Your task to perform on an android device: toggle priority inbox in the gmail app Image 0: 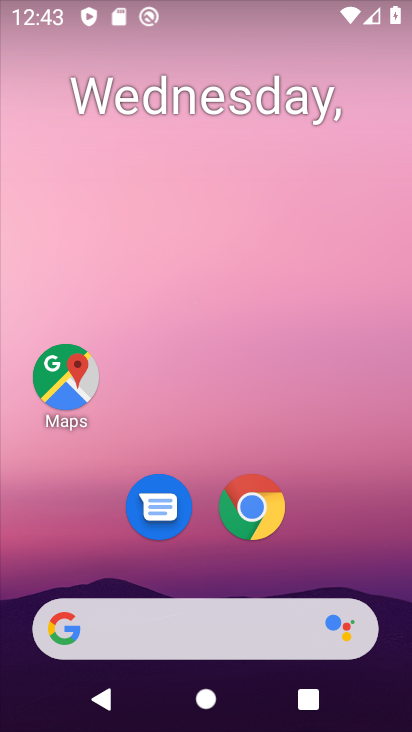
Step 0: drag from (361, 435) to (297, 2)
Your task to perform on an android device: toggle priority inbox in the gmail app Image 1: 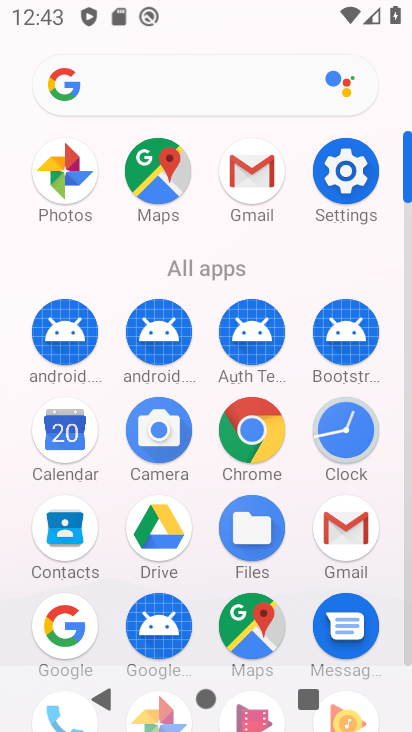
Step 1: click (256, 177)
Your task to perform on an android device: toggle priority inbox in the gmail app Image 2: 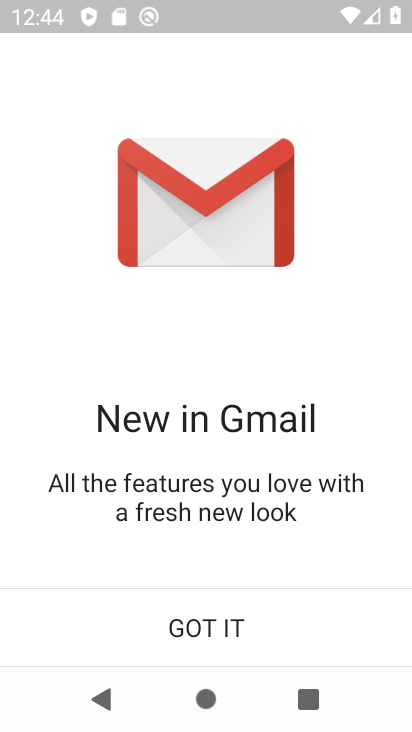
Step 2: click (230, 624)
Your task to perform on an android device: toggle priority inbox in the gmail app Image 3: 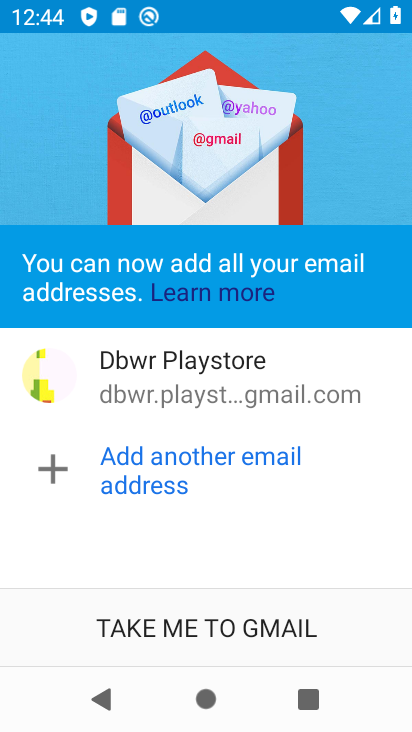
Step 3: click (209, 617)
Your task to perform on an android device: toggle priority inbox in the gmail app Image 4: 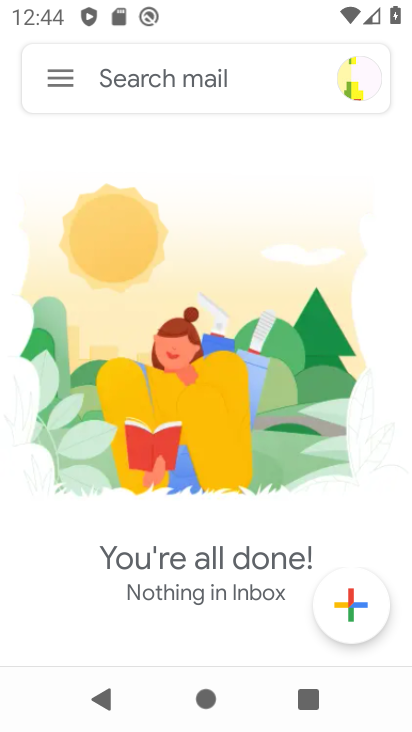
Step 4: click (56, 89)
Your task to perform on an android device: toggle priority inbox in the gmail app Image 5: 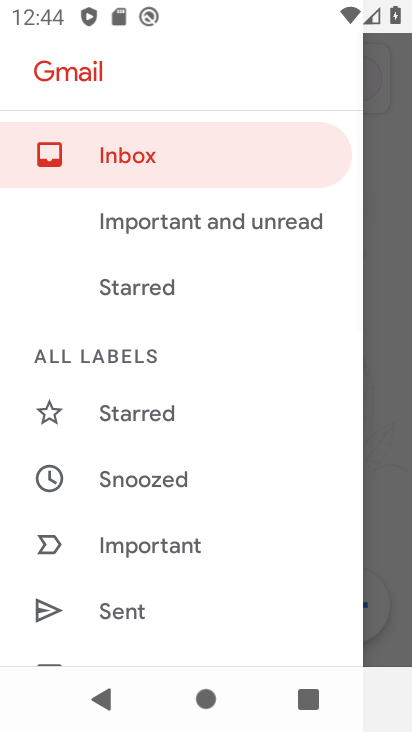
Step 5: click (176, 266)
Your task to perform on an android device: toggle priority inbox in the gmail app Image 6: 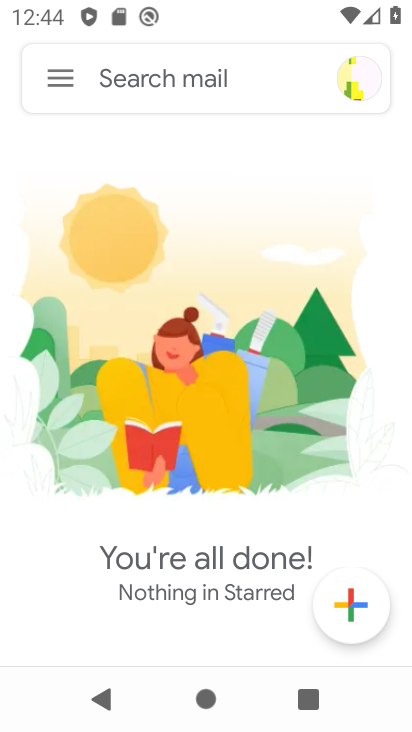
Step 6: click (58, 66)
Your task to perform on an android device: toggle priority inbox in the gmail app Image 7: 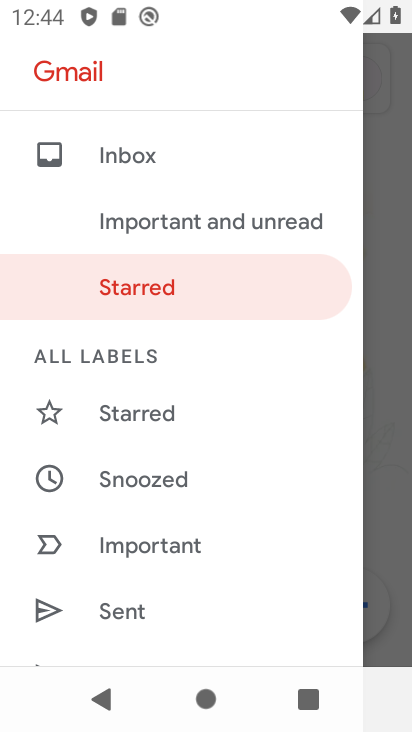
Step 7: drag from (138, 522) to (159, 180)
Your task to perform on an android device: toggle priority inbox in the gmail app Image 8: 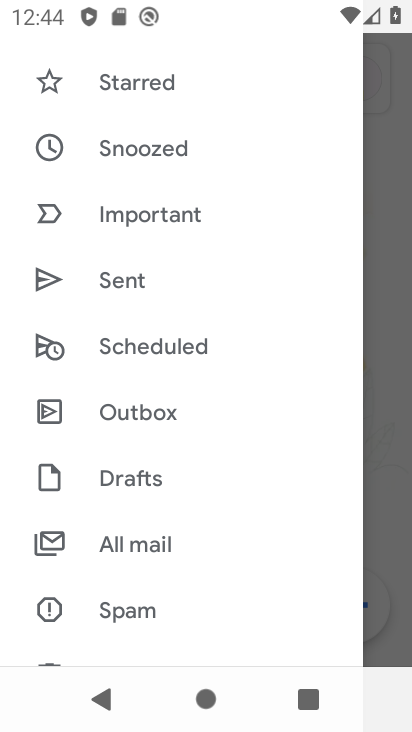
Step 8: drag from (180, 552) to (232, 226)
Your task to perform on an android device: toggle priority inbox in the gmail app Image 9: 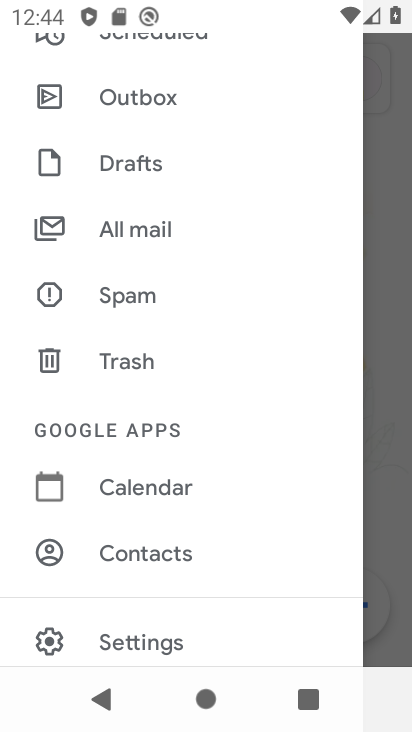
Step 9: click (130, 643)
Your task to perform on an android device: toggle priority inbox in the gmail app Image 10: 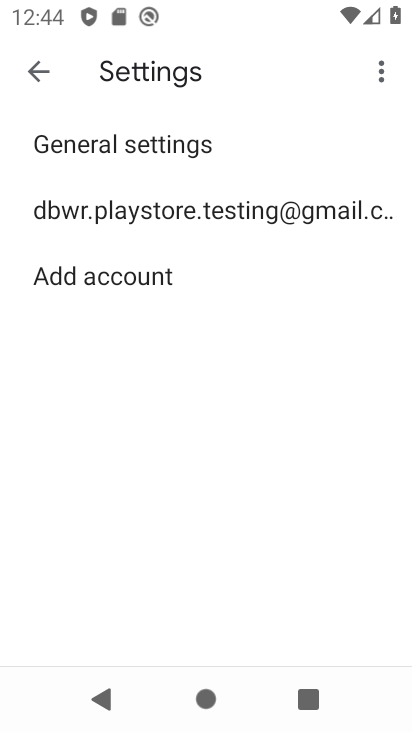
Step 10: click (101, 217)
Your task to perform on an android device: toggle priority inbox in the gmail app Image 11: 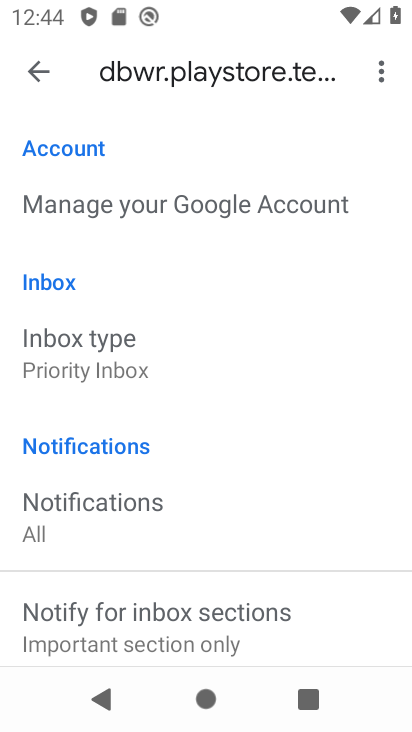
Step 11: click (91, 352)
Your task to perform on an android device: toggle priority inbox in the gmail app Image 12: 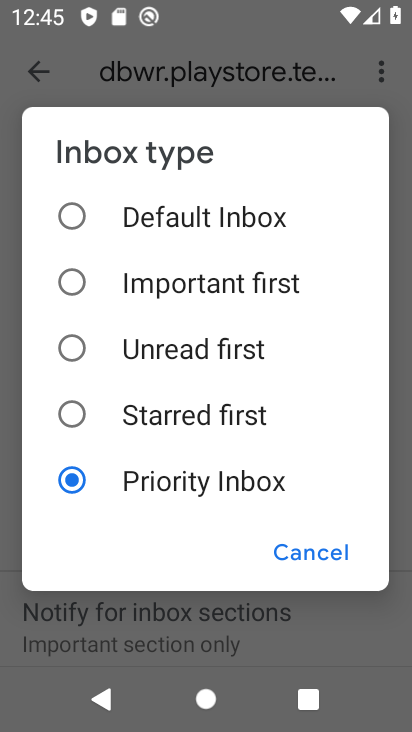
Step 12: click (76, 222)
Your task to perform on an android device: toggle priority inbox in the gmail app Image 13: 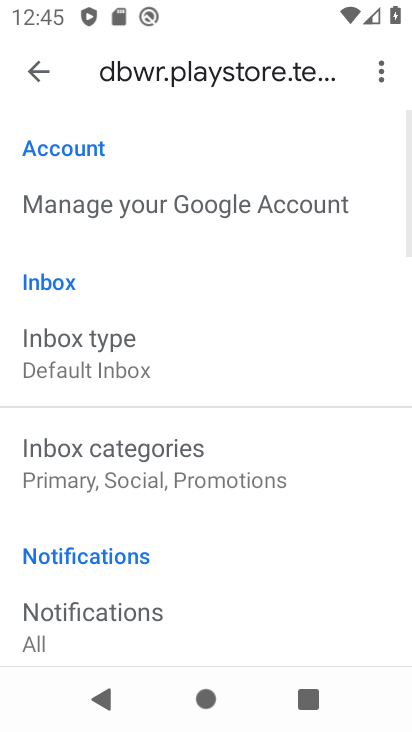
Step 13: task complete